Your task to perform on an android device: Go to display settings Image 0: 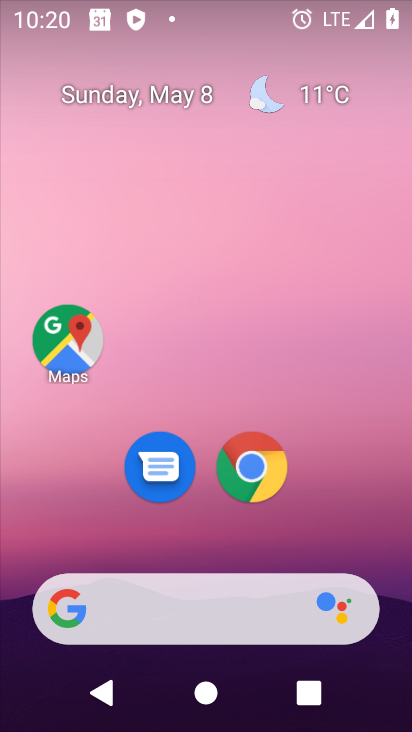
Step 0: drag from (27, 536) to (210, 179)
Your task to perform on an android device: Go to display settings Image 1: 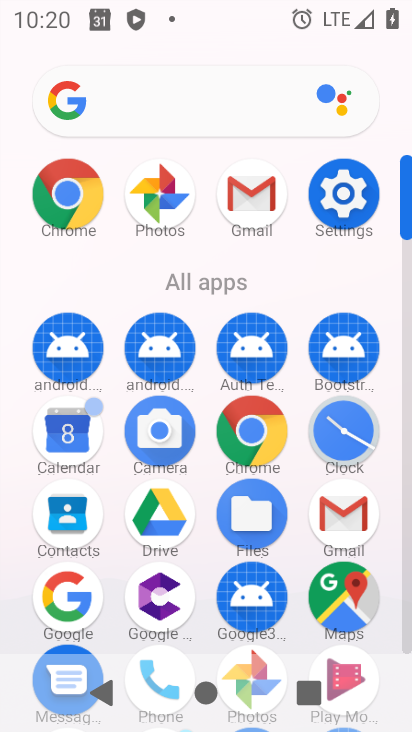
Step 1: click (340, 189)
Your task to perform on an android device: Go to display settings Image 2: 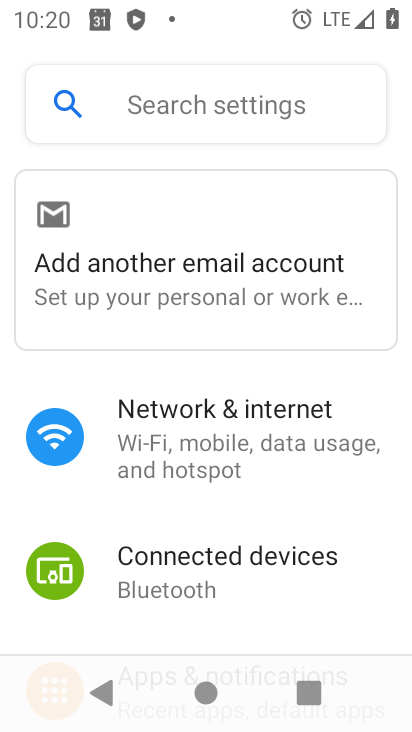
Step 2: drag from (196, 574) to (280, 188)
Your task to perform on an android device: Go to display settings Image 3: 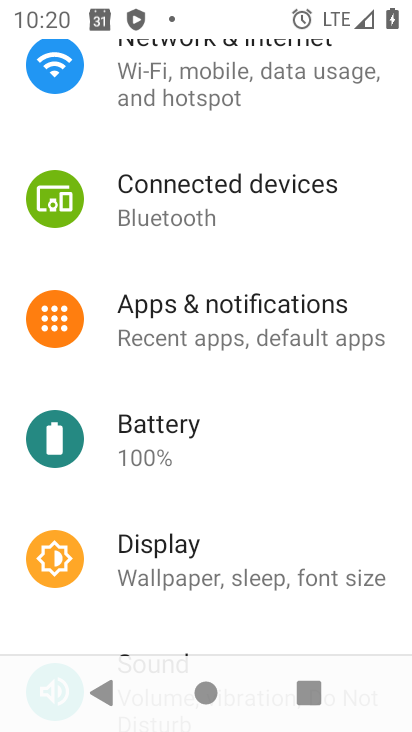
Step 3: click (165, 551)
Your task to perform on an android device: Go to display settings Image 4: 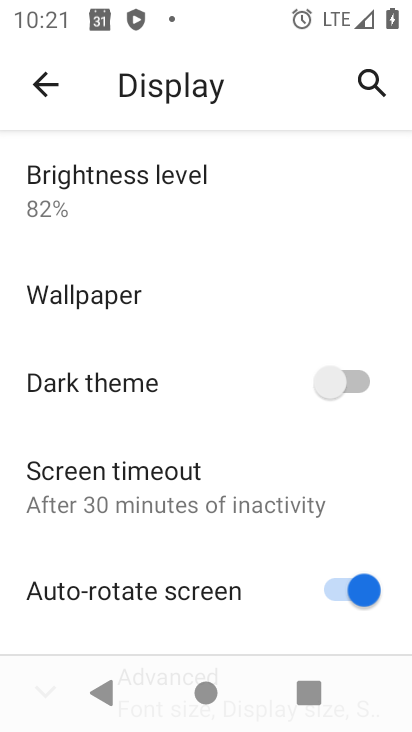
Step 4: task complete